Your task to perform on an android device: toggle show notifications on the lock screen Image 0: 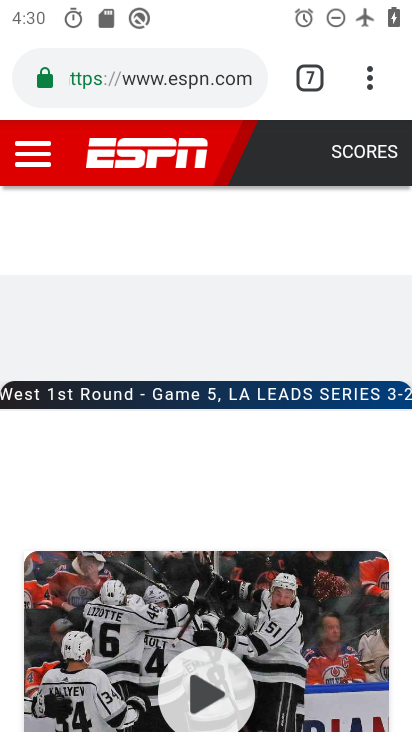
Step 0: press home button
Your task to perform on an android device: toggle show notifications on the lock screen Image 1: 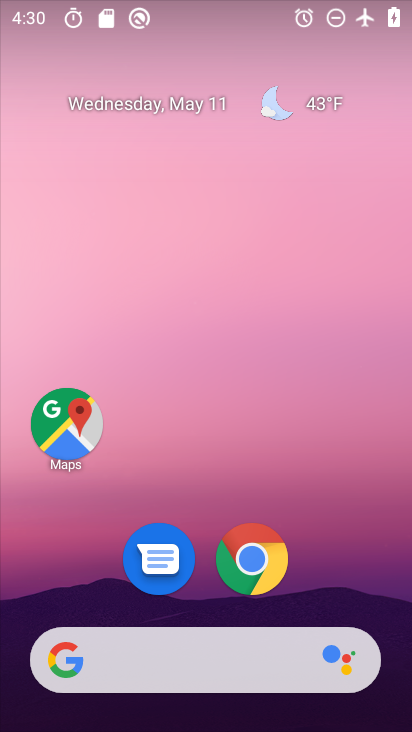
Step 1: drag from (338, 523) to (265, 69)
Your task to perform on an android device: toggle show notifications on the lock screen Image 2: 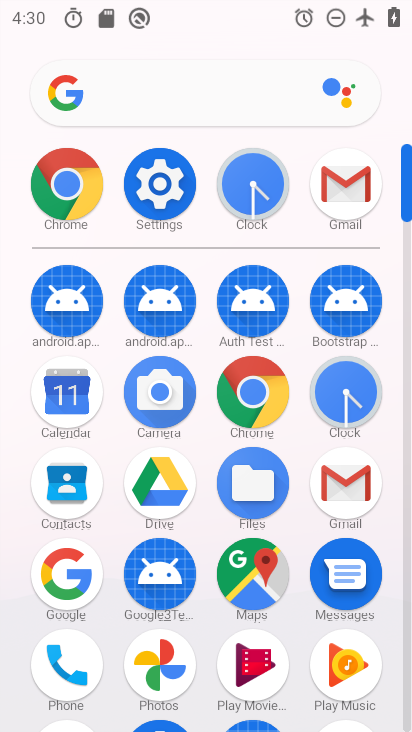
Step 2: click (146, 190)
Your task to perform on an android device: toggle show notifications on the lock screen Image 3: 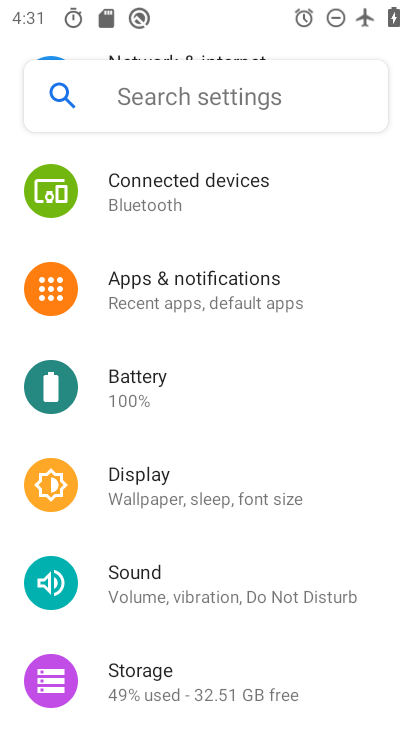
Step 3: click (196, 281)
Your task to perform on an android device: toggle show notifications on the lock screen Image 4: 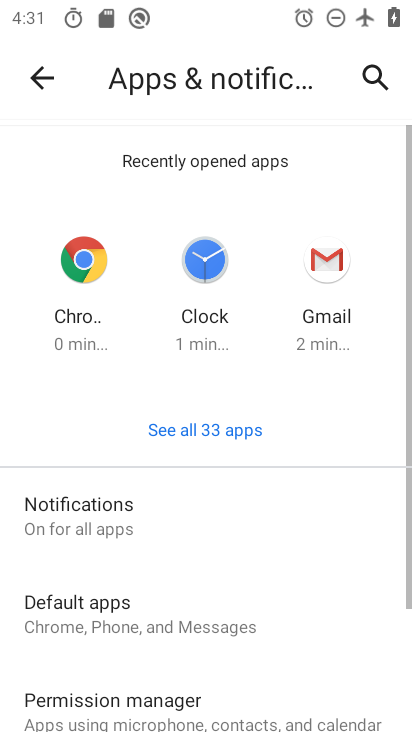
Step 4: click (173, 514)
Your task to perform on an android device: toggle show notifications on the lock screen Image 5: 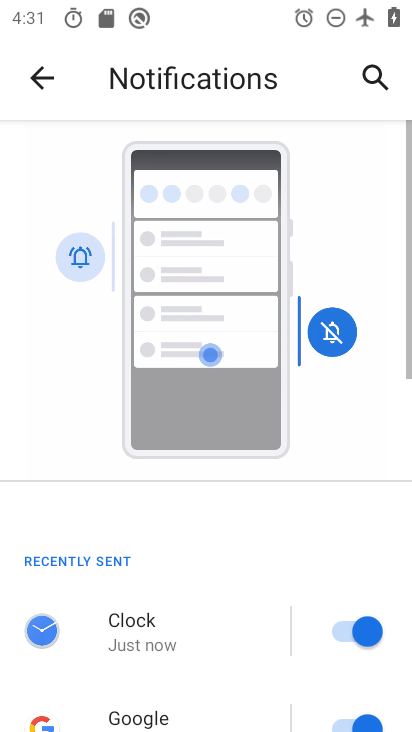
Step 5: drag from (222, 666) to (184, 205)
Your task to perform on an android device: toggle show notifications on the lock screen Image 6: 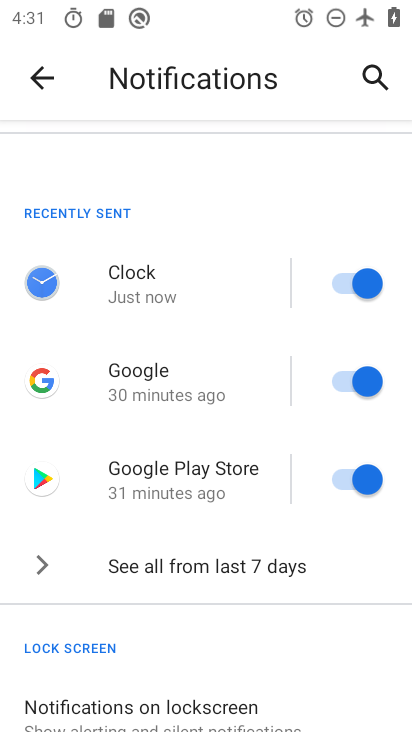
Step 6: drag from (192, 633) to (201, 420)
Your task to perform on an android device: toggle show notifications on the lock screen Image 7: 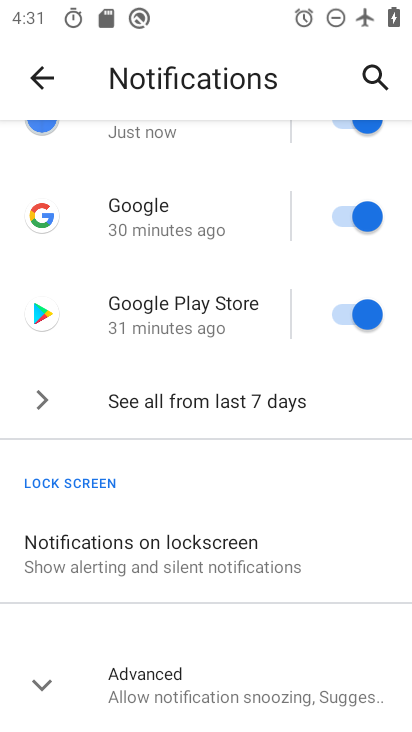
Step 7: click (202, 567)
Your task to perform on an android device: toggle show notifications on the lock screen Image 8: 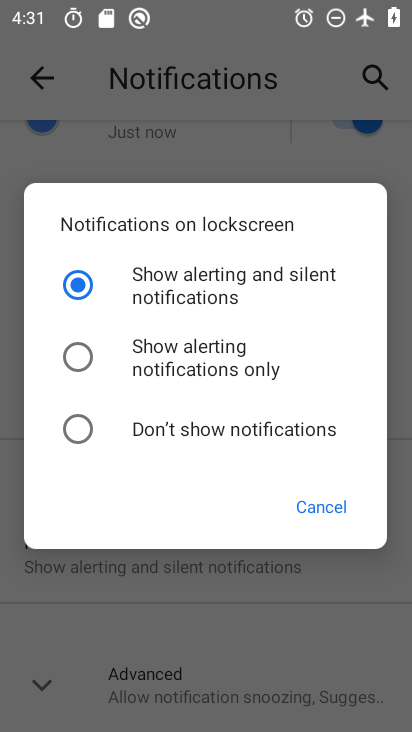
Step 8: click (188, 426)
Your task to perform on an android device: toggle show notifications on the lock screen Image 9: 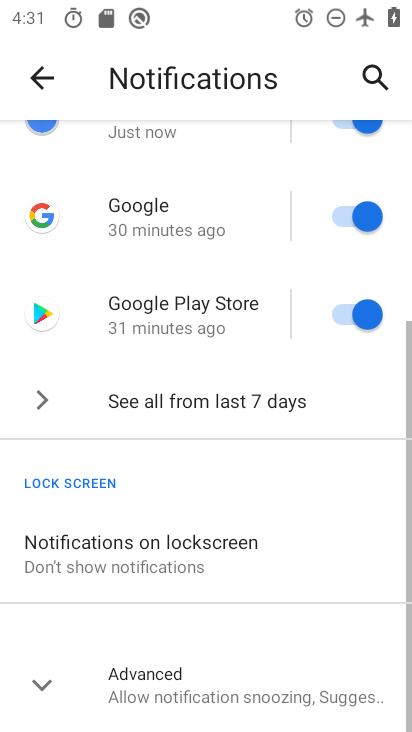
Step 9: task complete